Your task to perform on an android device: turn on improve location accuracy Image 0: 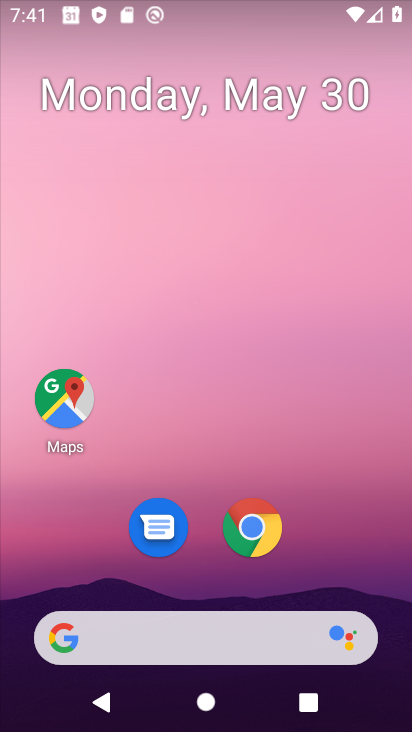
Step 0: drag from (340, 579) to (329, 2)
Your task to perform on an android device: turn on improve location accuracy Image 1: 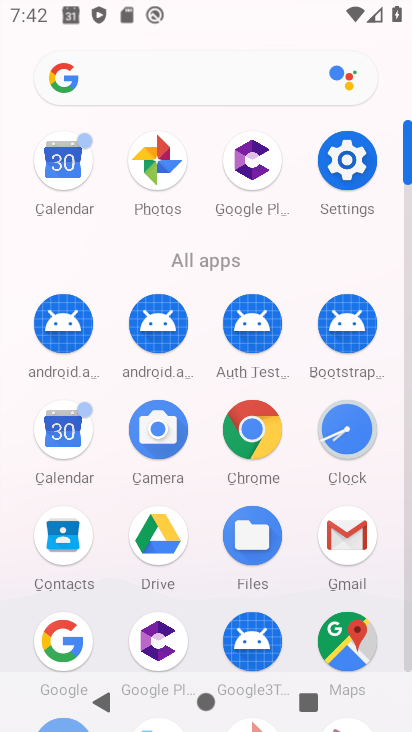
Step 1: click (347, 163)
Your task to perform on an android device: turn on improve location accuracy Image 2: 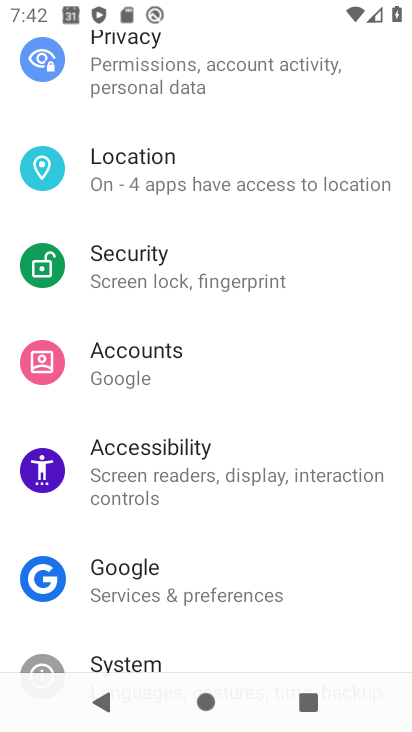
Step 2: click (158, 181)
Your task to perform on an android device: turn on improve location accuracy Image 3: 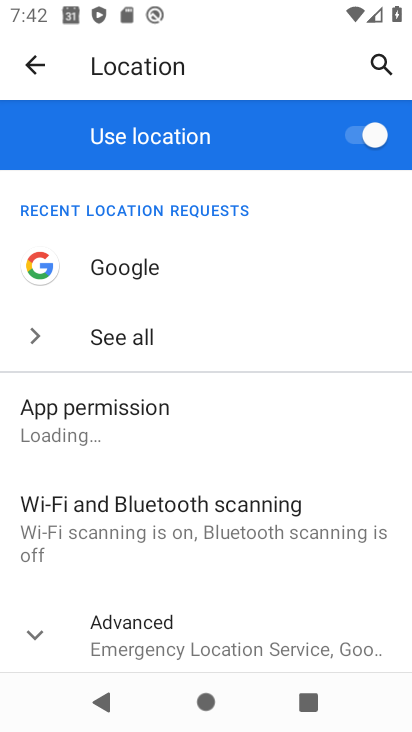
Step 3: click (134, 626)
Your task to perform on an android device: turn on improve location accuracy Image 4: 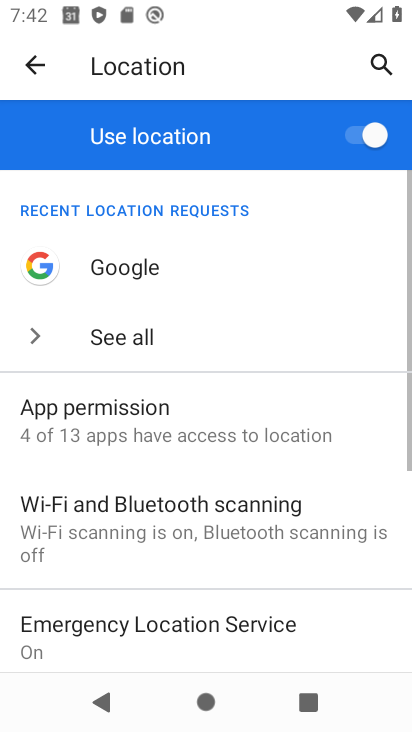
Step 4: drag from (134, 621) to (167, 171)
Your task to perform on an android device: turn on improve location accuracy Image 5: 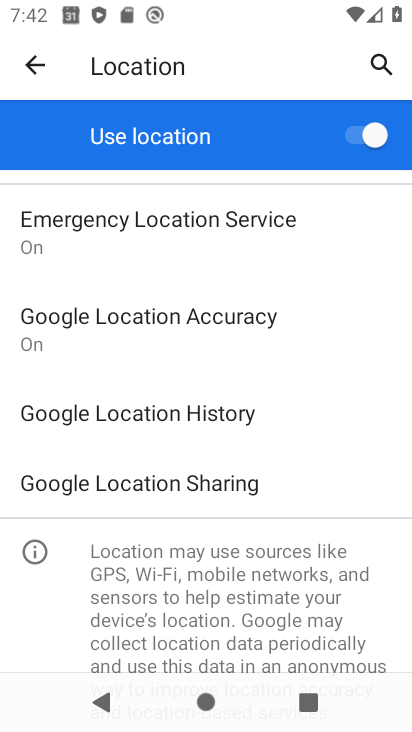
Step 5: click (168, 330)
Your task to perform on an android device: turn on improve location accuracy Image 6: 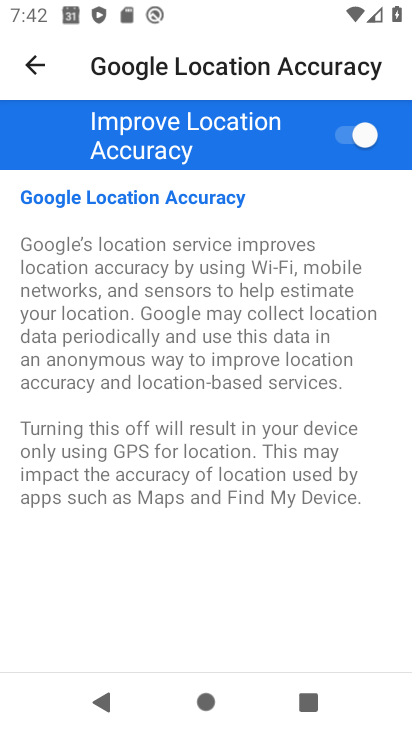
Step 6: task complete